Your task to perform on an android device: Show me popular videos on Youtube Image 0: 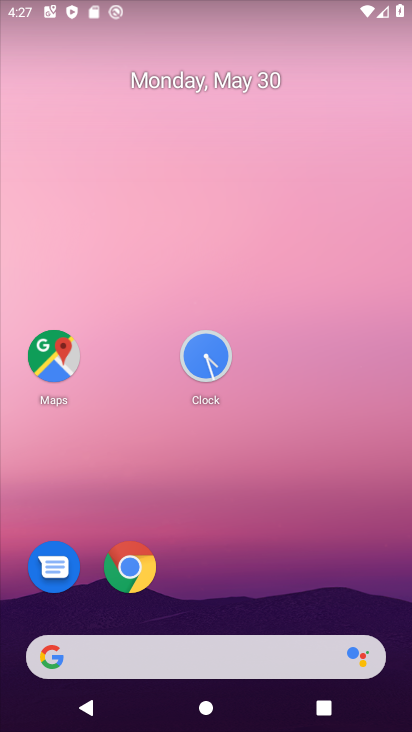
Step 0: drag from (264, 705) to (296, 234)
Your task to perform on an android device: Show me popular videos on Youtube Image 1: 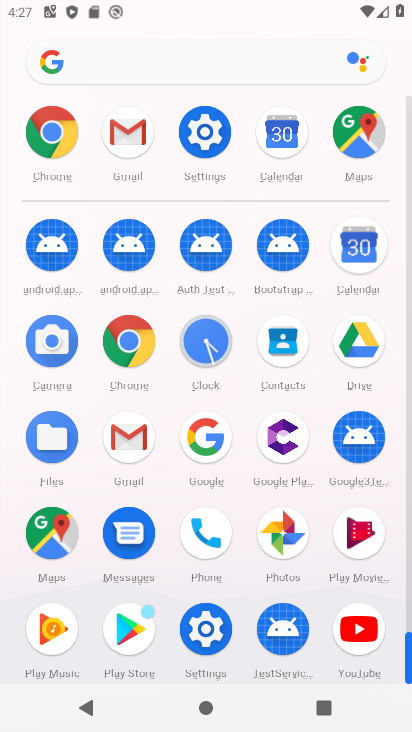
Step 1: click (368, 617)
Your task to perform on an android device: Show me popular videos on Youtube Image 2: 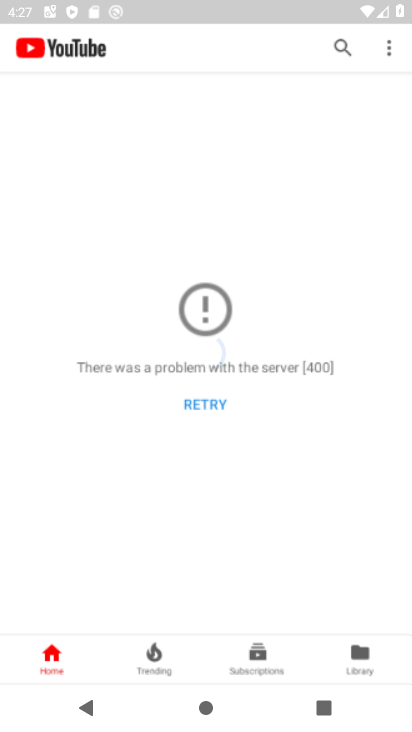
Step 2: click (352, 632)
Your task to perform on an android device: Show me popular videos on Youtube Image 3: 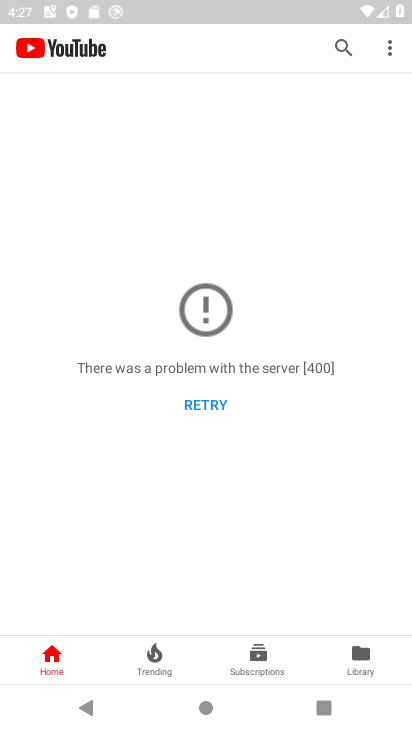
Step 3: press back button
Your task to perform on an android device: Show me popular videos on Youtube Image 4: 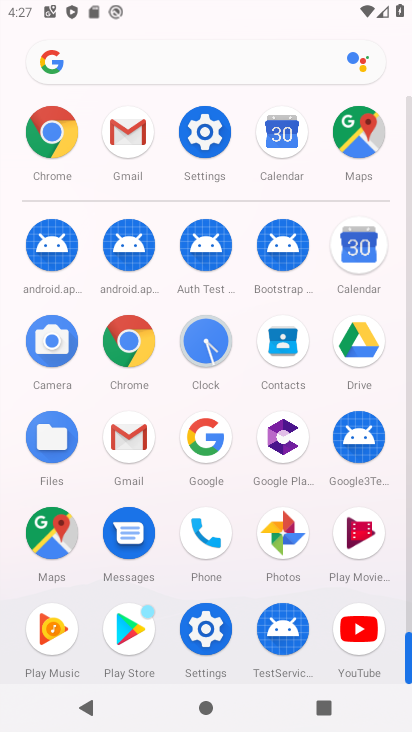
Step 4: click (351, 616)
Your task to perform on an android device: Show me popular videos on Youtube Image 5: 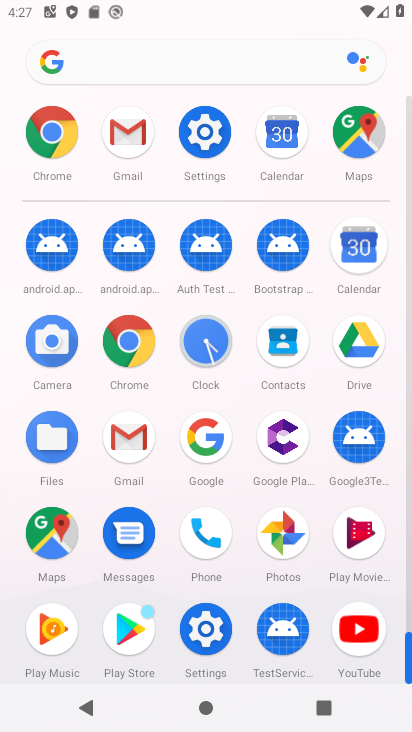
Step 5: click (353, 614)
Your task to perform on an android device: Show me popular videos on Youtube Image 6: 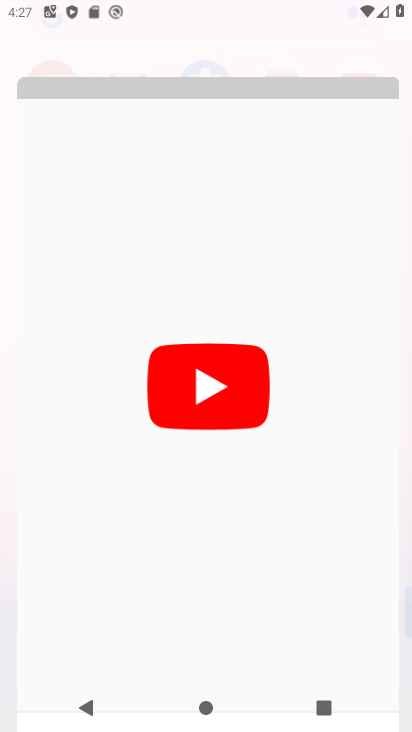
Step 6: click (357, 620)
Your task to perform on an android device: Show me popular videos on Youtube Image 7: 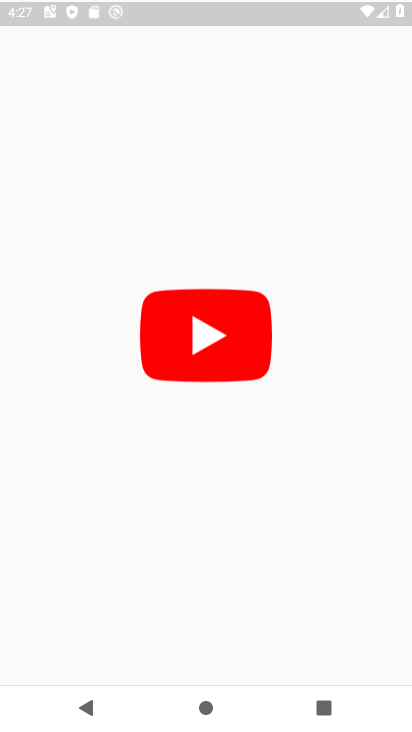
Step 7: click (357, 620)
Your task to perform on an android device: Show me popular videos on Youtube Image 8: 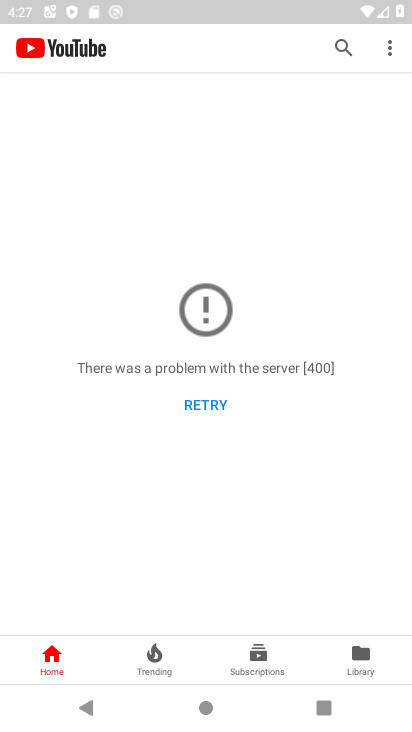
Step 8: task complete